Your task to perform on an android device: Open the web browser Image 0: 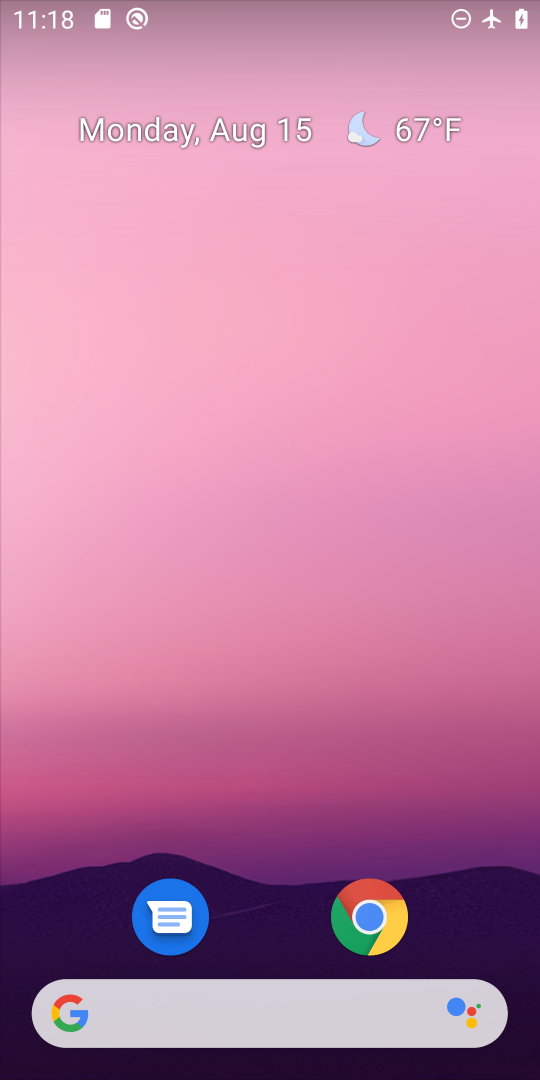
Step 0: click (260, 1021)
Your task to perform on an android device: Open the web browser Image 1: 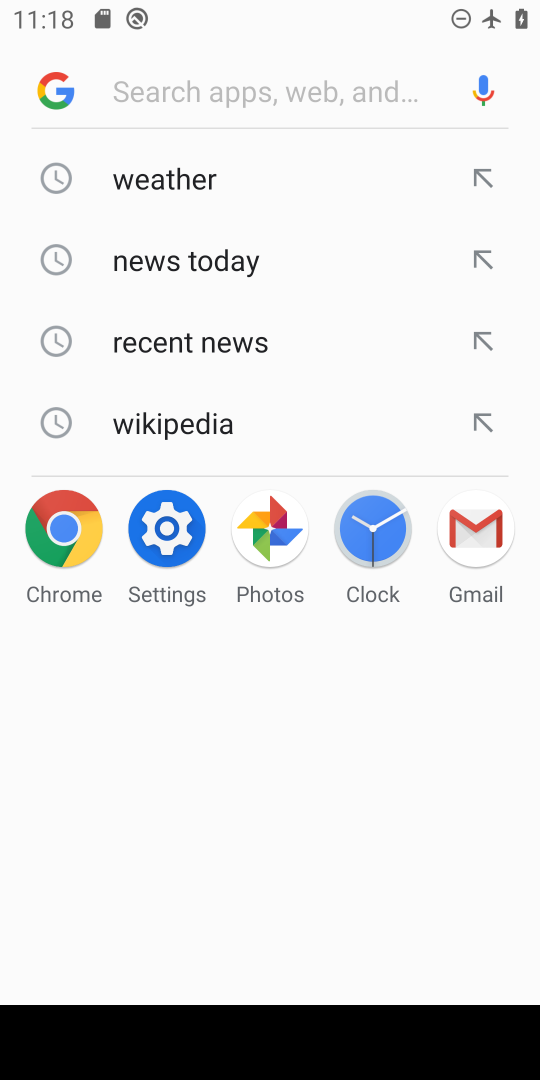
Step 1: task complete